Your task to perform on an android device: stop showing notifications on the lock screen Image 0: 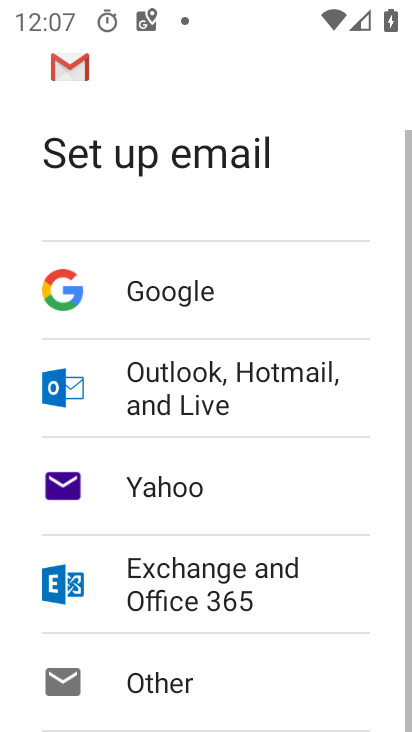
Step 0: press home button
Your task to perform on an android device: stop showing notifications on the lock screen Image 1: 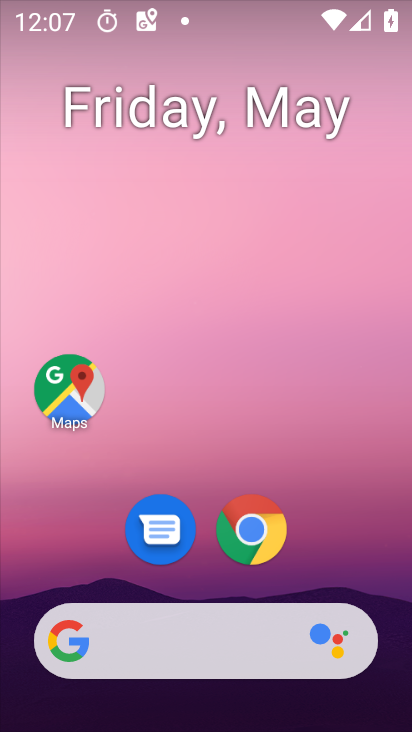
Step 1: drag from (271, 702) to (283, 174)
Your task to perform on an android device: stop showing notifications on the lock screen Image 2: 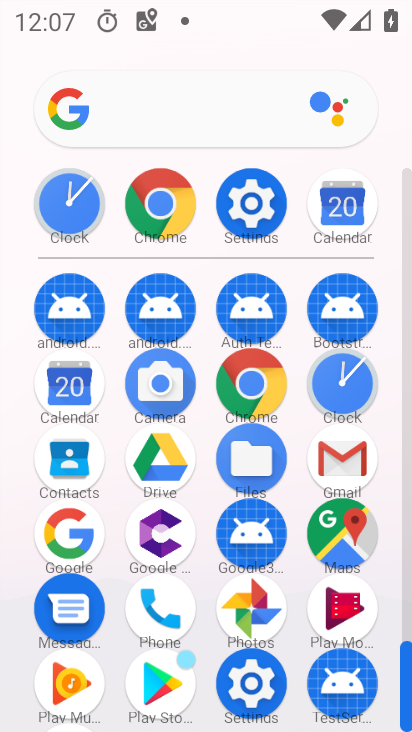
Step 2: click (250, 209)
Your task to perform on an android device: stop showing notifications on the lock screen Image 3: 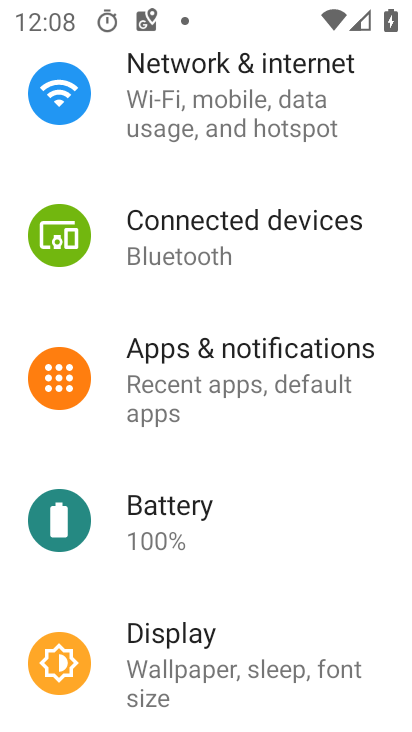
Step 3: drag from (209, 274) to (236, 614)
Your task to perform on an android device: stop showing notifications on the lock screen Image 4: 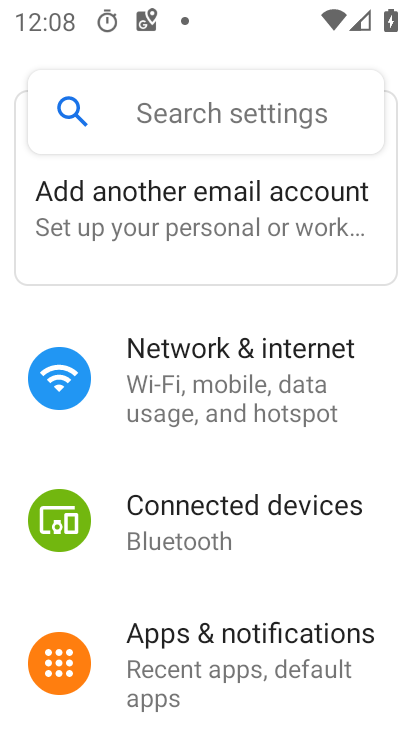
Step 4: click (256, 662)
Your task to perform on an android device: stop showing notifications on the lock screen Image 5: 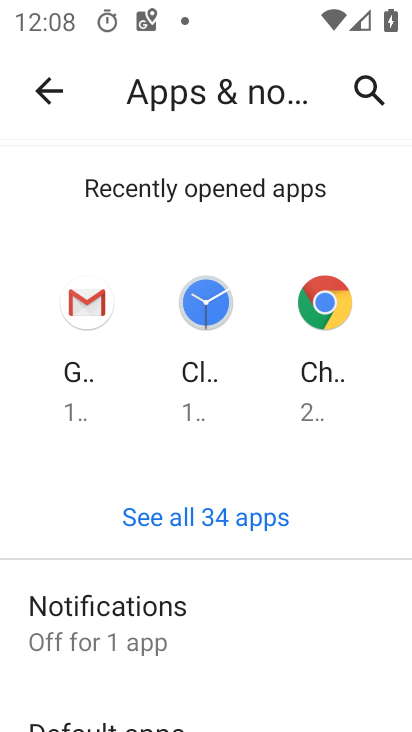
Step 5: click (258, 647)
Your task to perform on an android device: stop showing notifications on the lock screen Image 6: 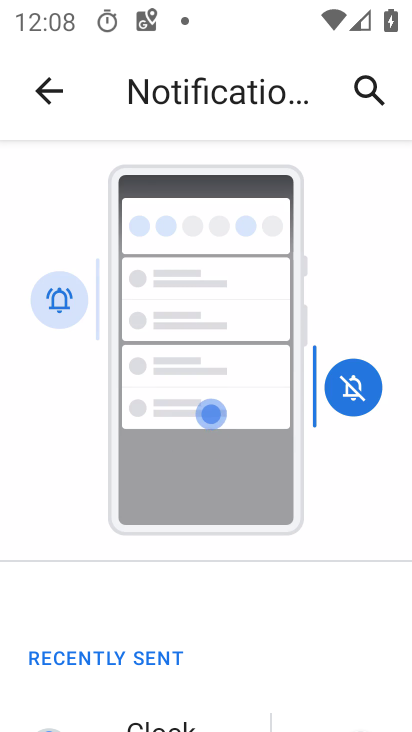
Step 6: drag from (258, 646) to (266, 271)
Your task to perform on an android device: stop showing notifications on the lock screen Image 7: 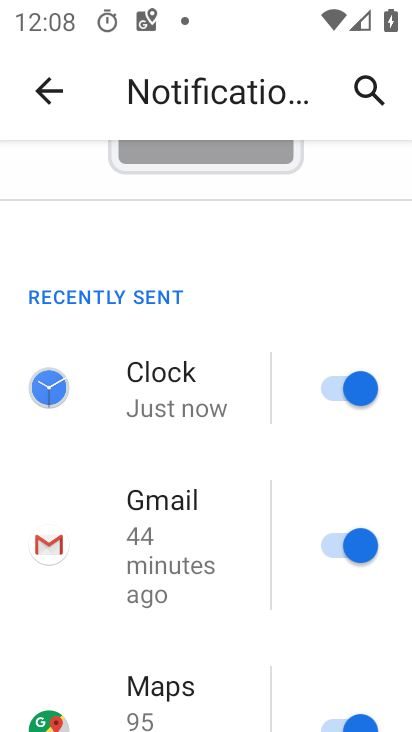
Step 7: drag from (192, 588) to (251, 149)
Your task to perform on an android device: stop showing notifications on the lock screen Image 8: 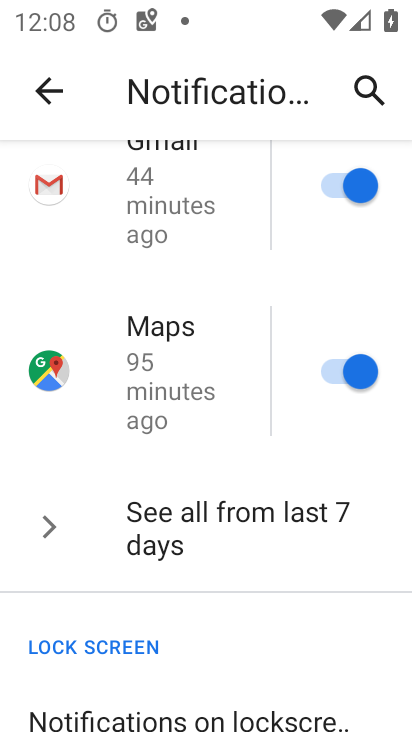
Step 8: drag from (198, 535) to (224, 278)
Your task to perform on an android device: stop showing notifications on the lock screen Image 9: 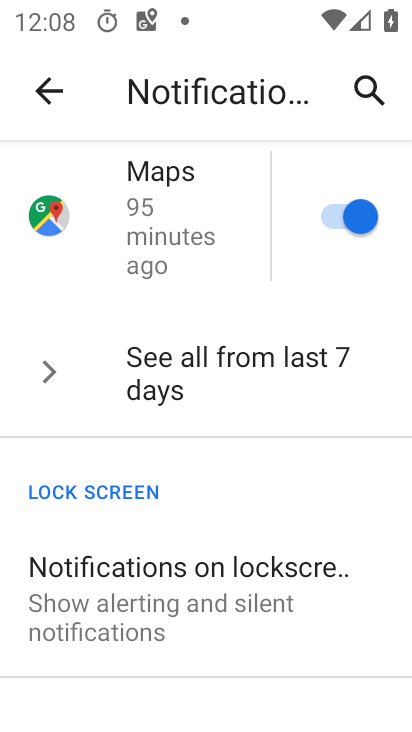
Step 9: click (205, 620)
Your task to perform on an android device: stop showing notifications on the lock screen Image 10: 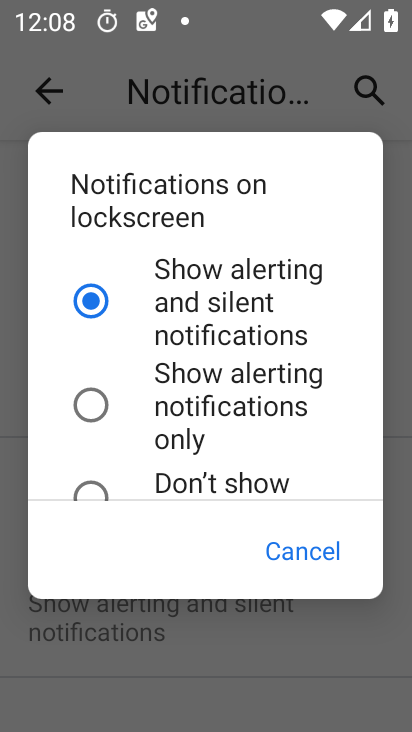
Step 10: drag from (201, 399) to (212, 103)
Your task to perform on an android device: stop showing notifications on the lock screen Image 11: 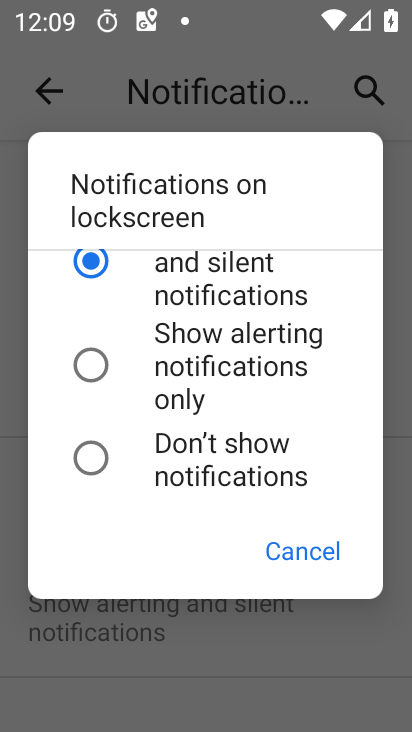
Step 11: click (114, 467)
Your task to perform on an android device: stop showing notifications on the lock screen Image 12: 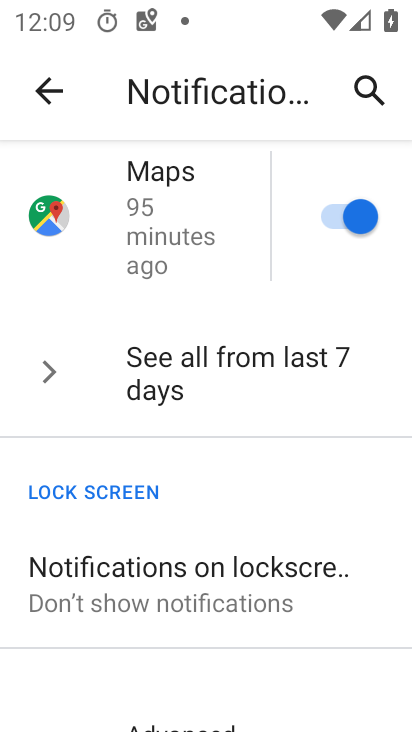
Step 12: task complete